Your task to perform on an android device: toggle notification dots Image 0: 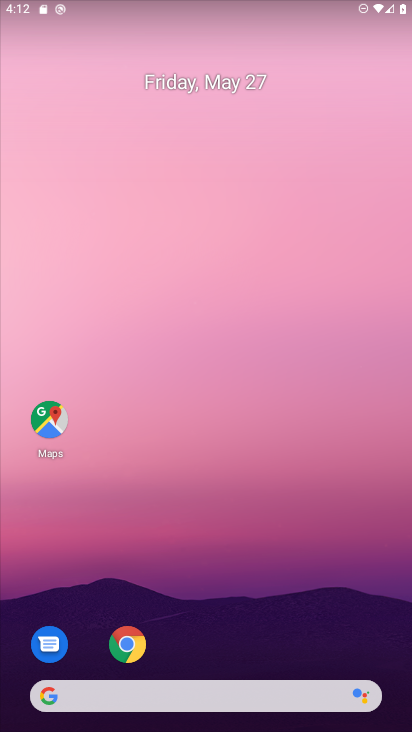
Step 0: drag from (253, 571) to (257, 58)
Your task to perform on an android device: toggle notification dots Image 1: 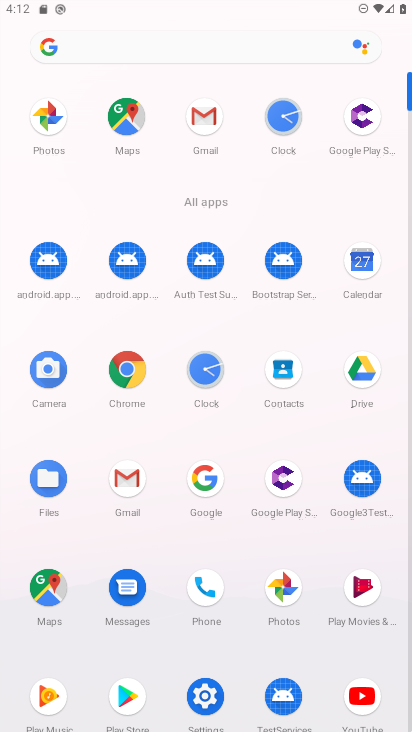
Step 1: click (198, 710)
Your task to perform on an android device: toggle notification dots Image 2: 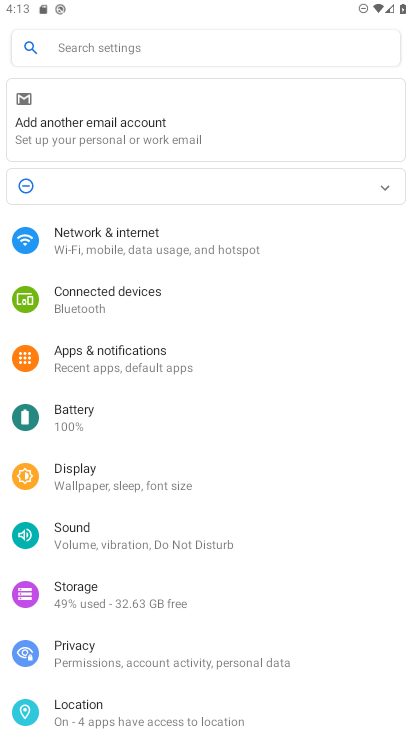
Step 2: click (107, 369)
Your task to perform on an android device: toggle notification dots Image 3: 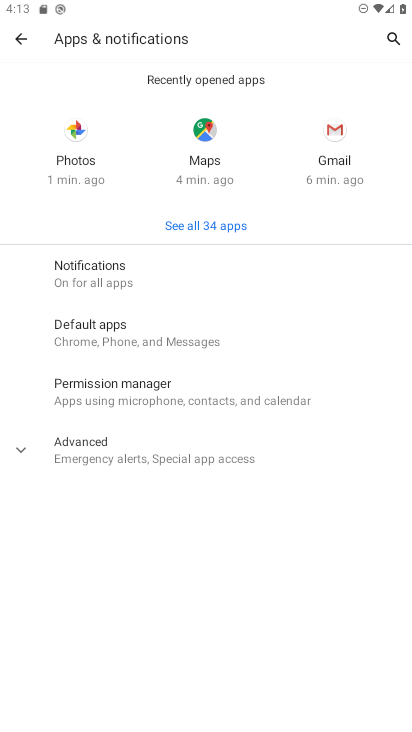
Step 3: click (80, 271)
Your task to perform on an android device: toggle notification dots Image 4: 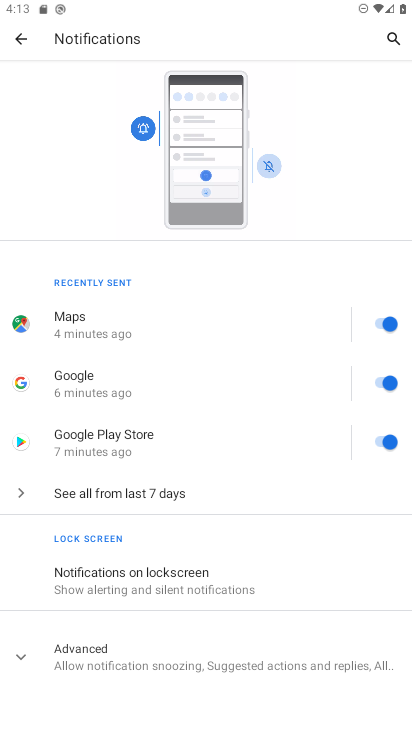
Step 4: click (120, 652)
Your task to perform on an android device: toggle notification dots Image 5: 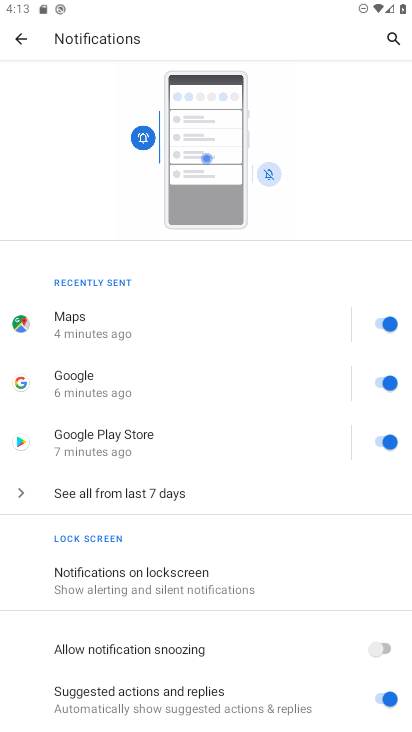
Step 5: drag from (135, 680) to (190, 196)
Your task to perform on an android device: toggle notification dots Image 6: 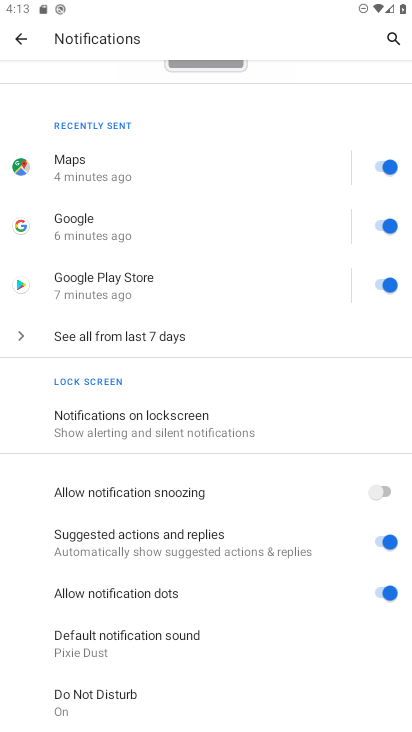
Step 6: click (382, 590)
Your task to perform on an android device: toggle notification dots Image 7: 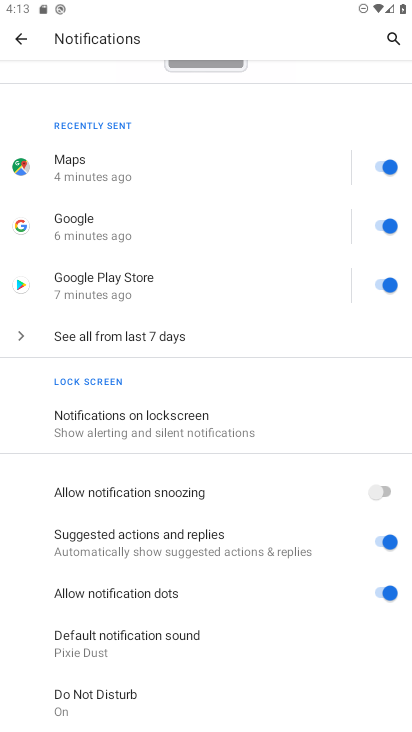
Step 7: click (382, 590)
Your task to perform on an android device: toggle notification dots Image 8: 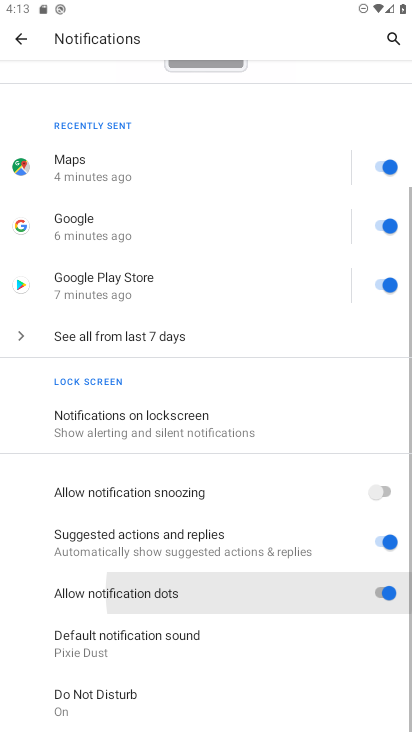
Step 8: click (382, 590)
Your task to perform on an android device: toggle notification dots Image 9: 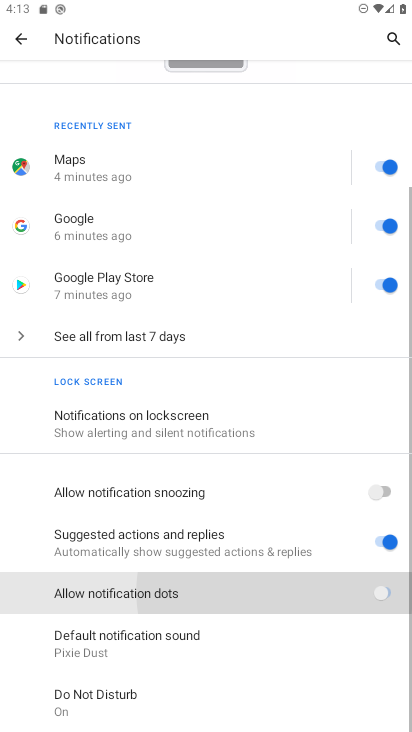
Step 9: click (382, 590)
Your task to perform on an android device: toggle notification dots Image 10: 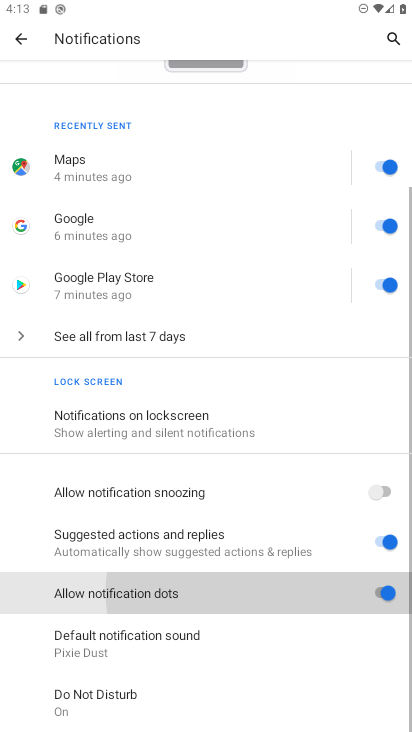
Step 10: click (382, 590)
Your task to perform on an android device: toggle notification dots Image 11: 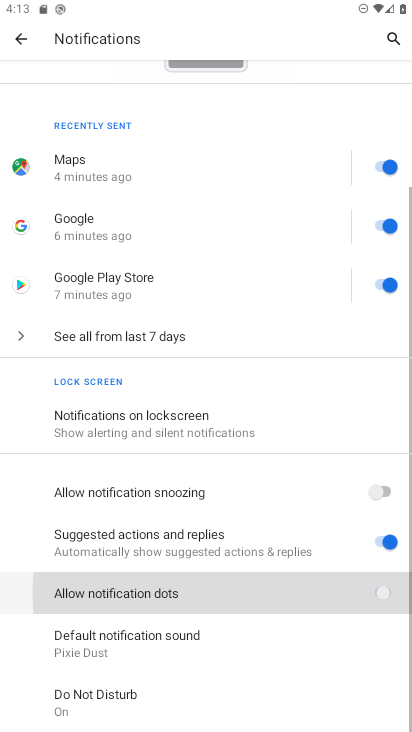
Step 11: click (382, 590)
Your task to perform on an android device: toggle notification dots Image 12: 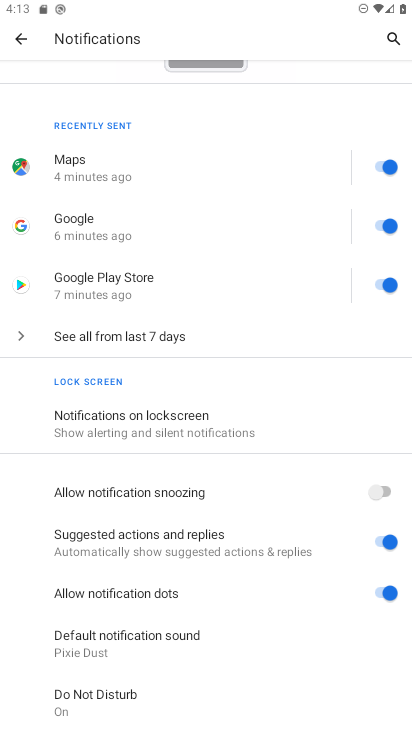
Step 12: task complete